Your task to perform on an android device: Go to notification settings Image 0: 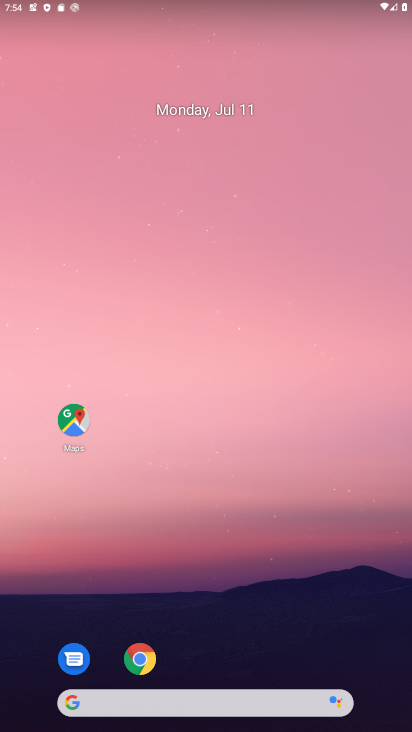
Step 0: drag from (233, 642) to (310, 159)
Your task to perform on an android device: Go to notification settings Image 1: 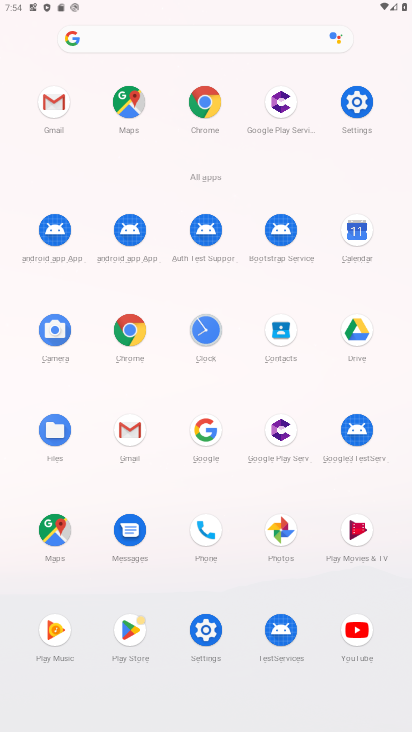
Step 1: drag from (183, 594) to (274, 125)
Your task to perform on an android device: Go to notification settings Image 2: 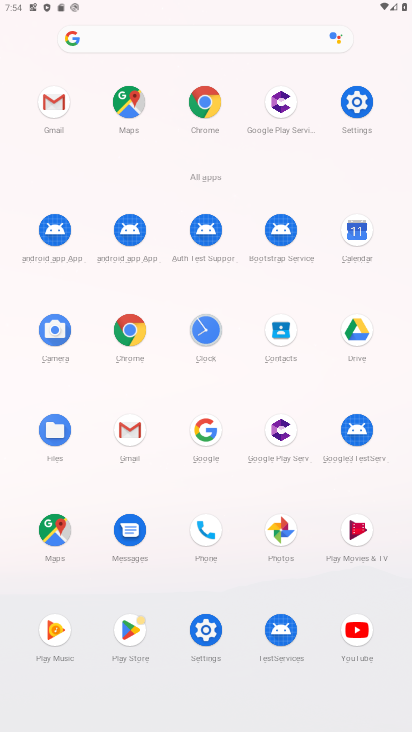
Step 2: click (201, 630)
Your task to perform on an android device: Go to notification settings Image 3: 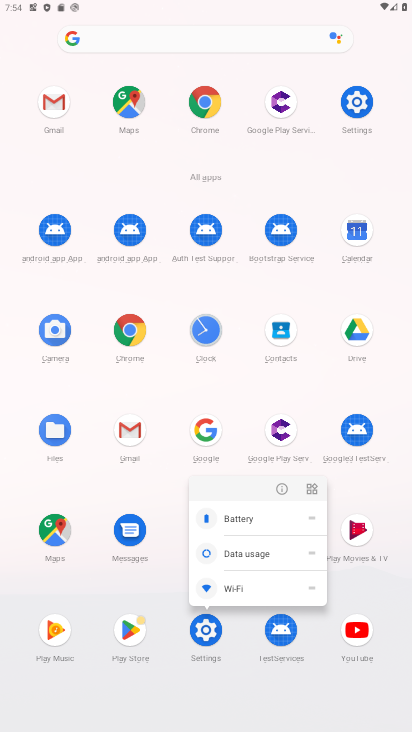
Step 3: click (281, 485)
Your task to perform on an android device: Go to notification settings Image 4: 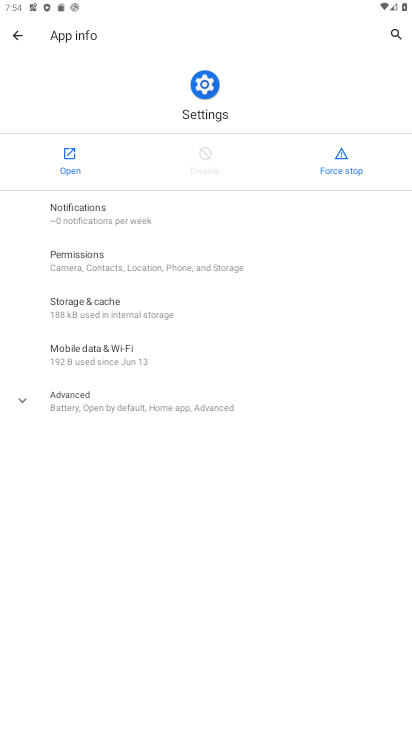
Step 4: click (59, 167)
Your task to perform on an android device: Go to notification settings Image 5: 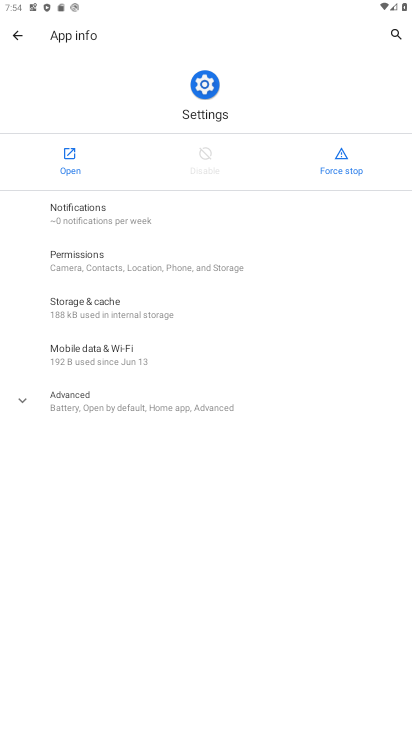
Step 5: click (59, 167)
Your task to perform on an android device: Go to notification settings Image 6: 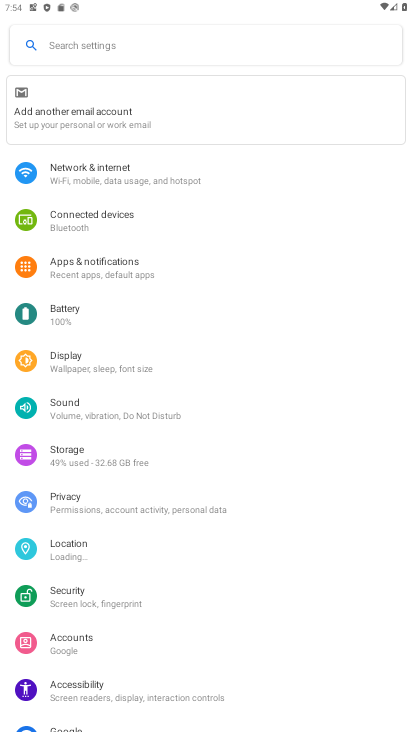
Step 6: click (118, 276)
Your task to perform on an android device: Go to notification settings Image 7: 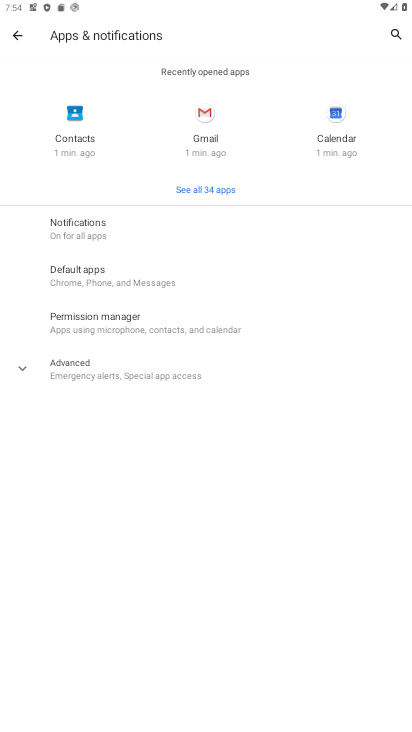
Step 7: click (99, 233)
Your task to perform on an android device: Go to notification settings Image 8: 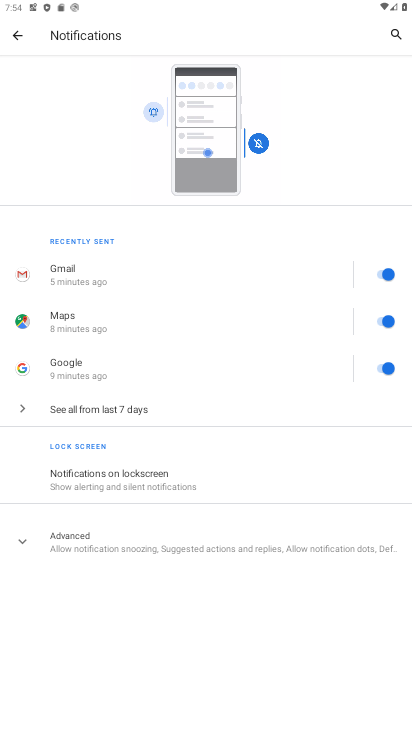
Step 8: task complete